Your task to perform on an android device: change the upload size in google photos Image 0: 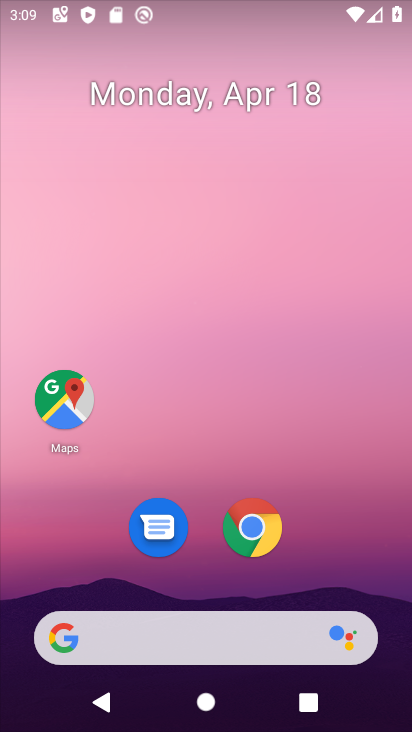
Step 0: drag from (131, 631) to (245, 118)
Your task to perform on an android device: change the upload size in google photos Image 1: 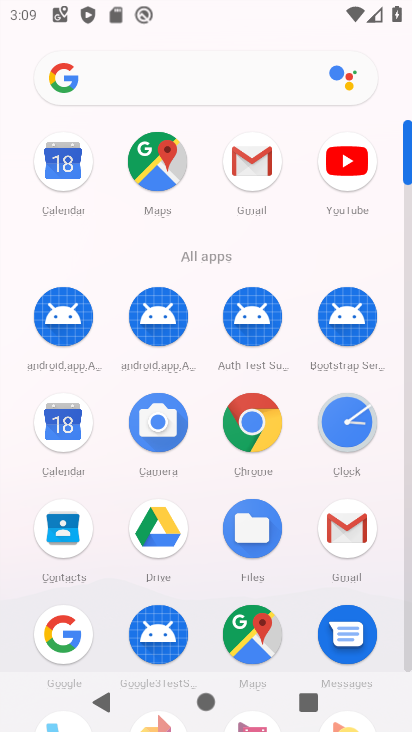
Step 1: drag from (126, 566) to (142, 41)
Your task to perform on an android device: change the upload size in google photos Image 2: 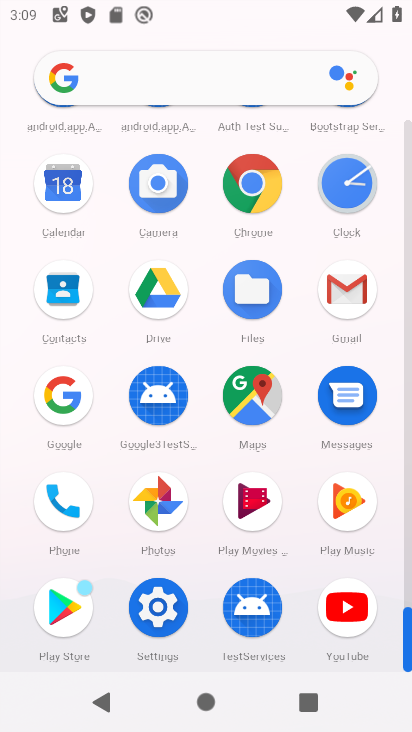
Step 2: click (169, 511)
Your task to perform on an android device: change the upload size in google photos Image 3: 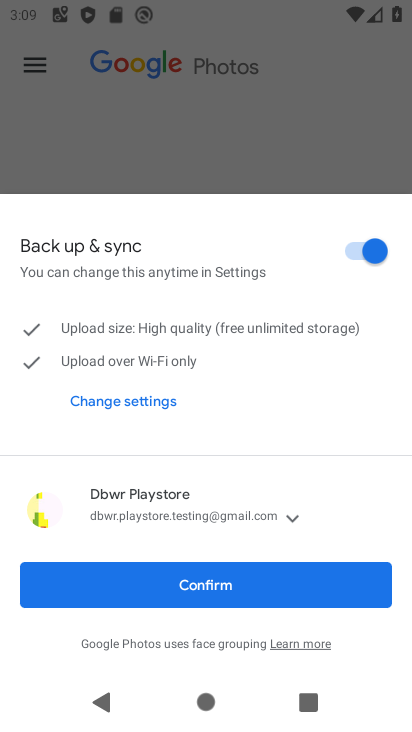
Step 3: click (214, 598)
Your task to perform on an android device: change the upload size in google photos Image 4: 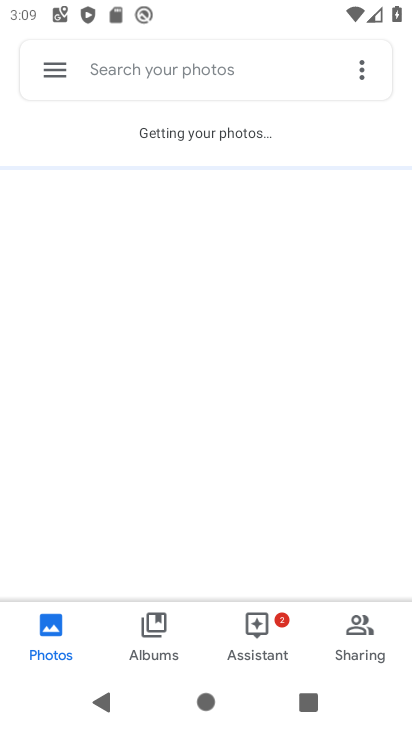
Step 4: click (52, 65)
Your task to perform on an android device: change the upload size in google photos Image 5: 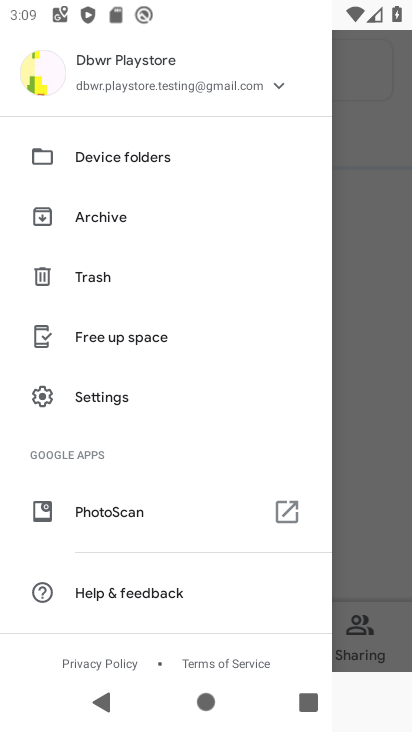
Step 5: click (94, 390)
Your task to perform on an android device: change the upload size in google photos Image 6: 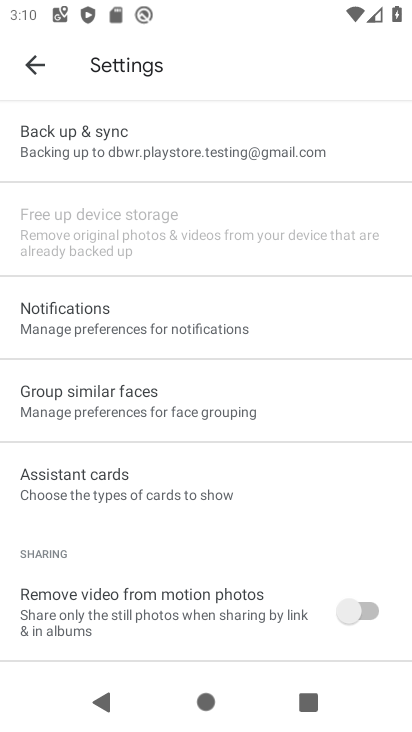
Step 6: click (57, 143)
Your task to perform on an android device: change the upload size in google photos Image 7: 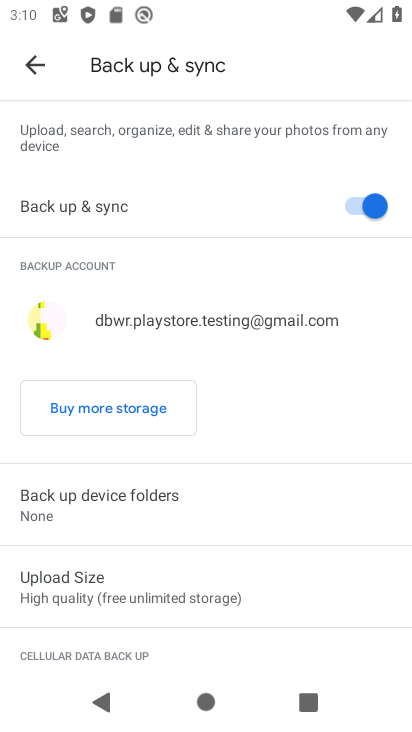
Step 7: click (117, 600)
Your task to perform on an android device: change the upload size in google photos Image 8: 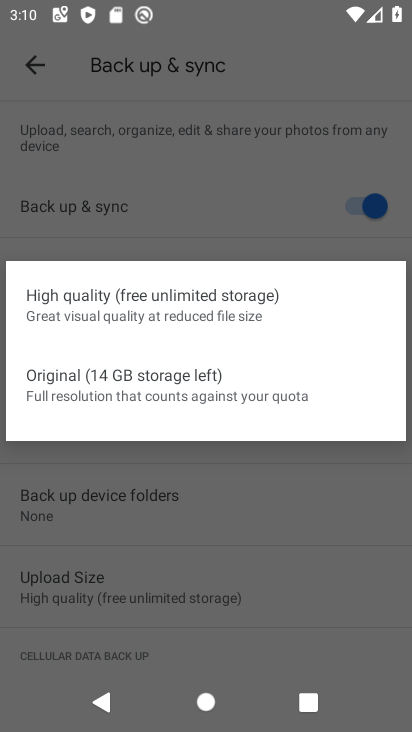
Step 8: click (99, 401)
Your task to perform on an android device: change the upload size in google photos Image 9: 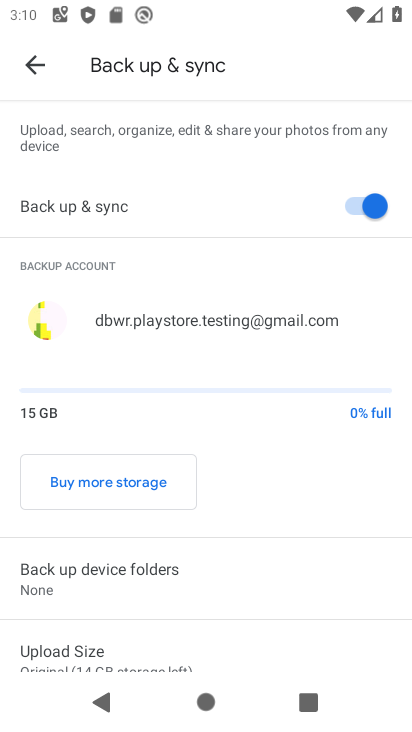
Step 9: task complete